Your task to perform on an android device: Go to Maps Image 0: 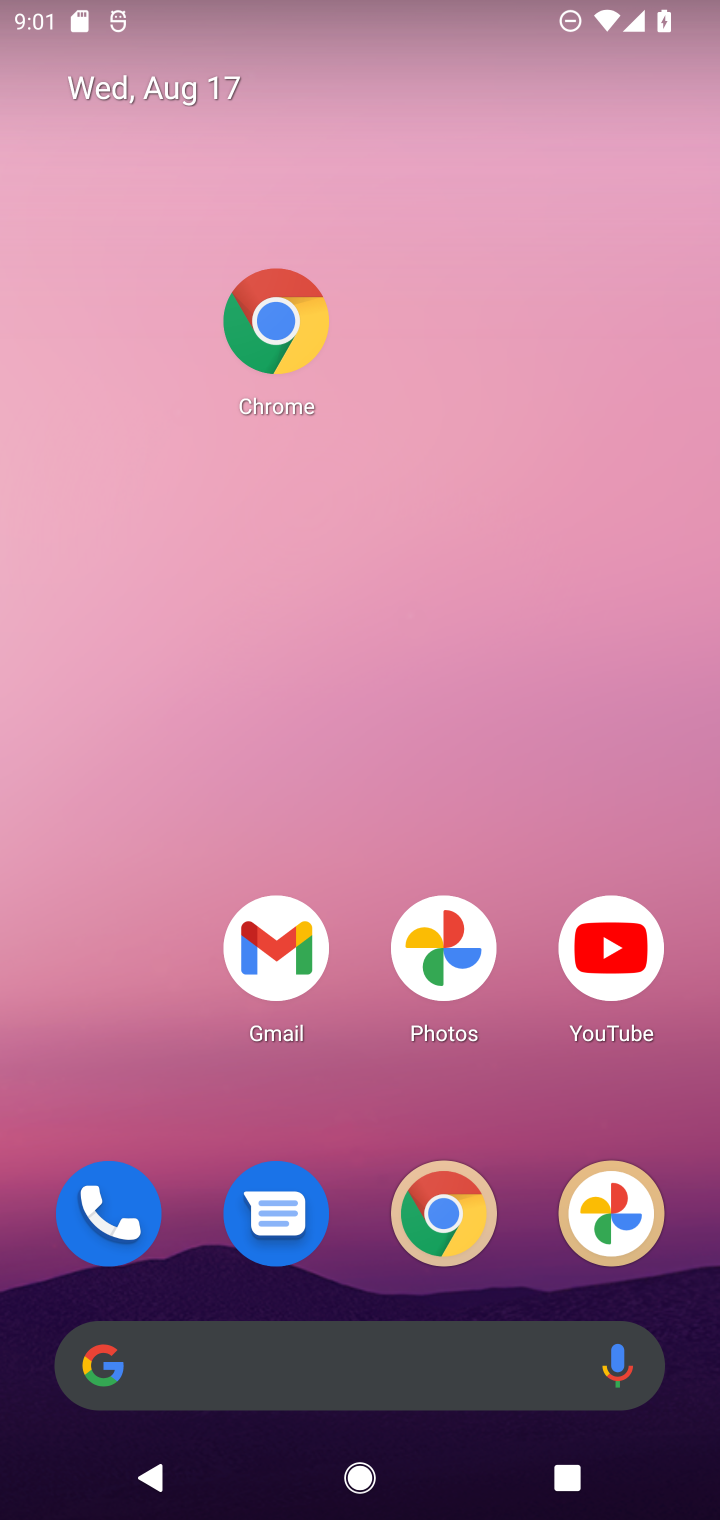
Step 0: drag from (533, 1282) to (535, 322)
Your task to perform on an android device: Go to Maps Image 1: 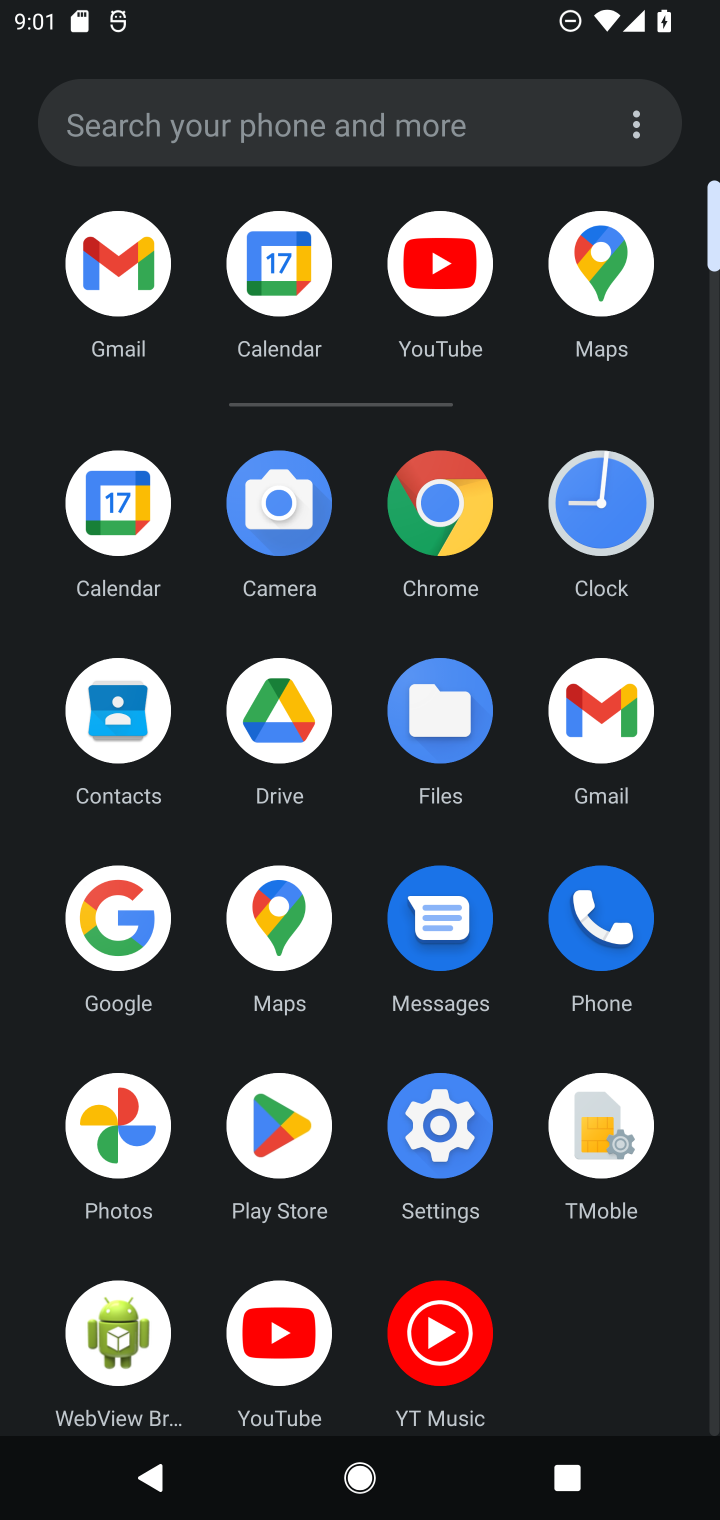
Step 1: click (605, 290)
Your task to perform on an android device: Go to Maps Image 2: 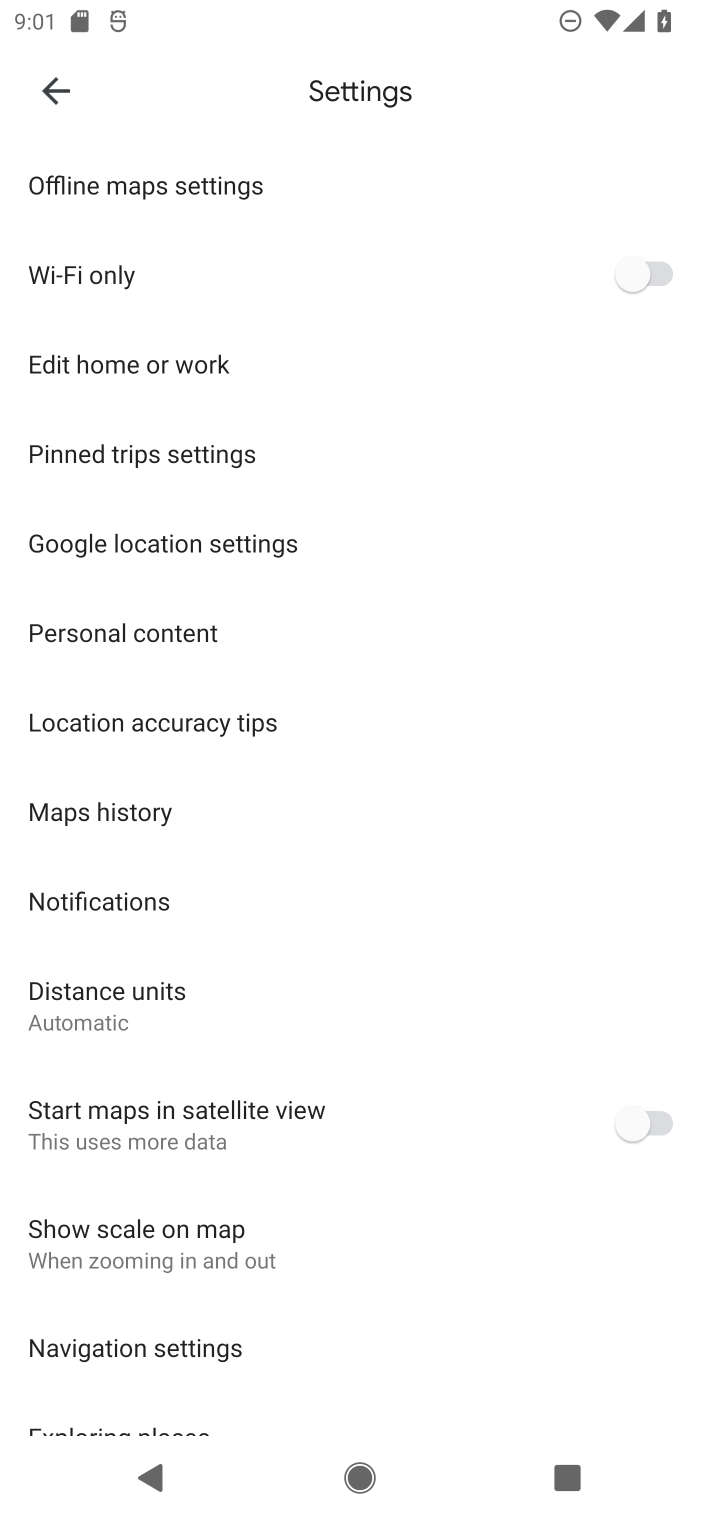
Step 2: click (54, 97)
Your task to perform on an android device: Go to Maps Image 3: 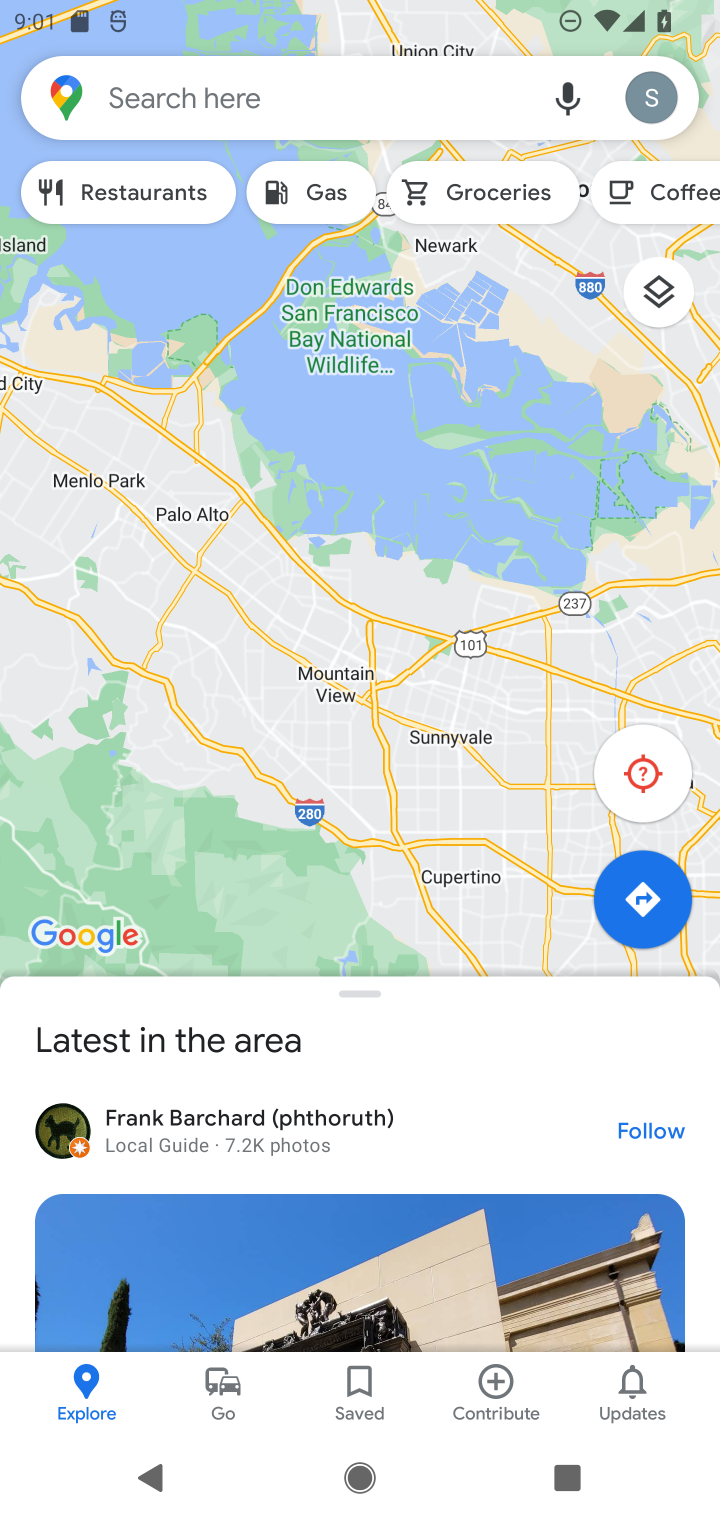
Step 3: task complete